Your task to perform on an android device: Go to Google maps Image 0: 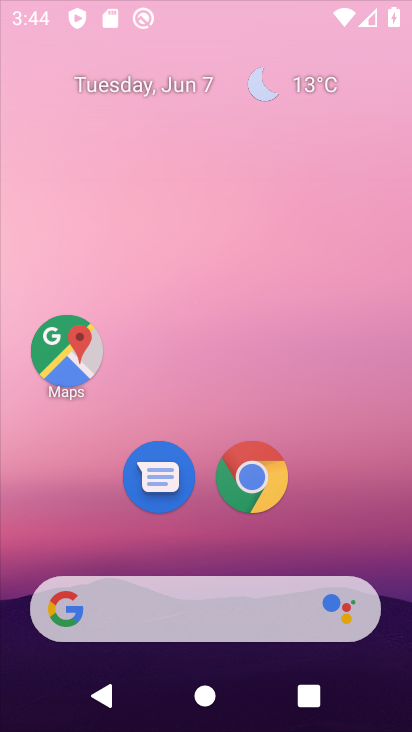
Step 0: click (254, 0)
Your task to perform on an android device: Go to Google maps Image 1: 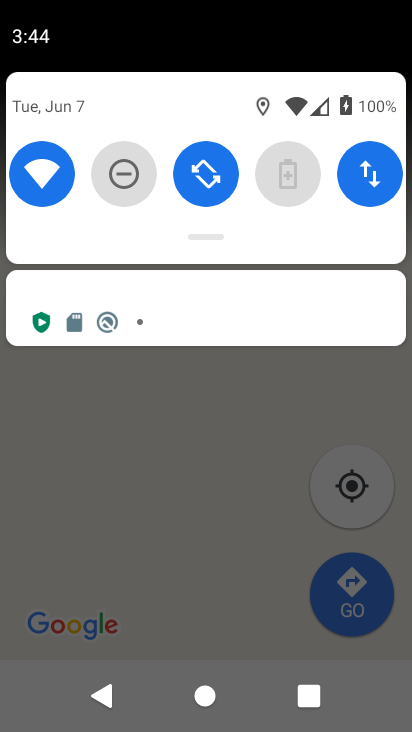
Step 1: press back button
Your task to perform on an android device: Go to Google maps Image 2: 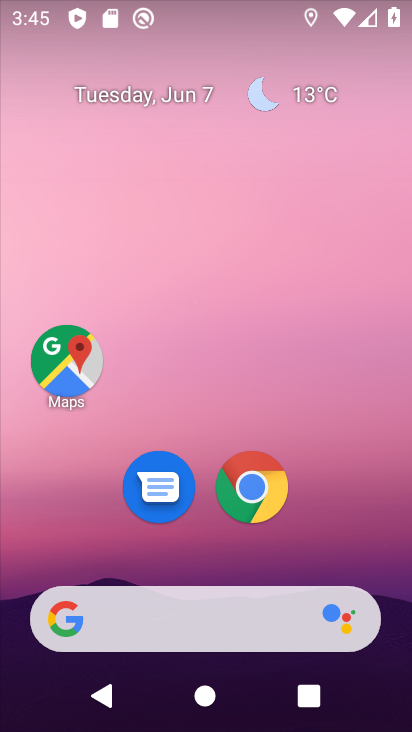
Step 2: click (50, 359)
Your task to perform on an android device: Go to Google maps Image 3: 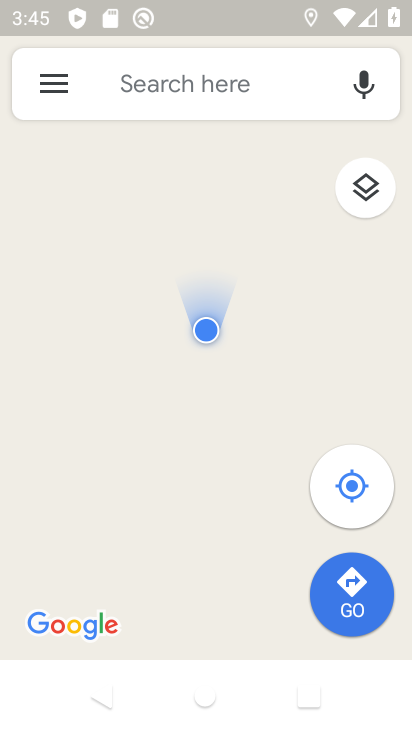
Step 3: task complete